Your task to perform on an android device: see sites visited before in the chrome app Image 0: 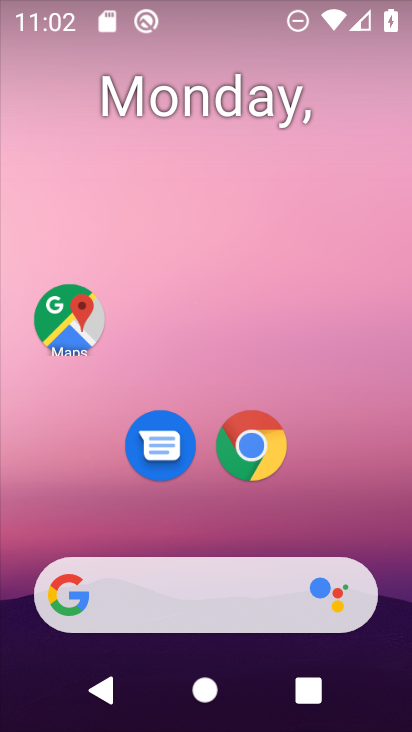
Step 0: press home button
Your task to perform on an android device: see sites visited before in the chrome app Image 1: 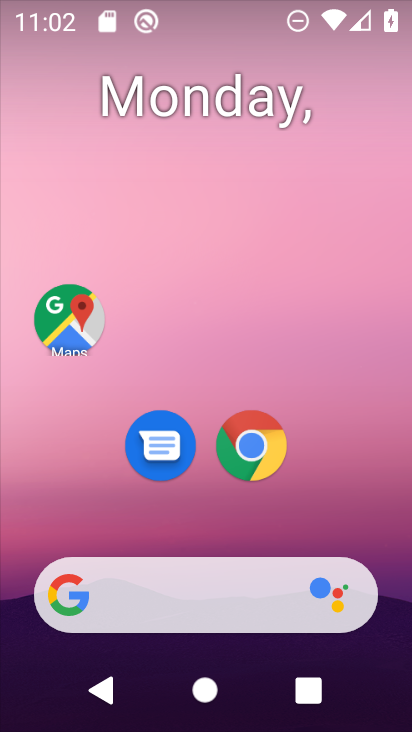
Step 1: click (251, 449)
Your task to perform on an android device: see sites visited before in the chrome app Image 2: 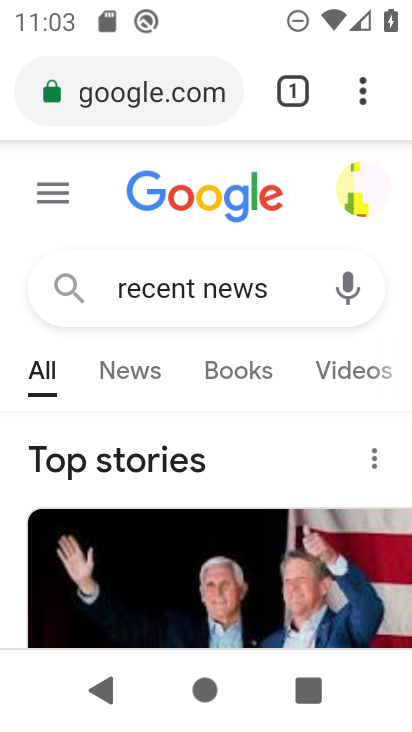
Step 2: click (365, 90)
Your task to perform on an android device: see sites visited before in the chrome app Image 3: 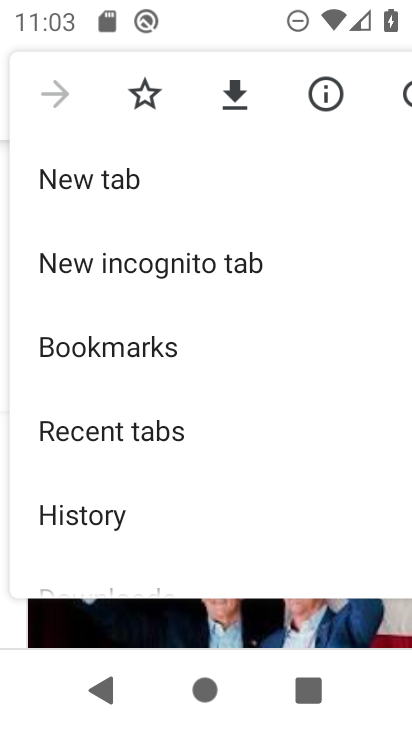
Step 3: click (115, 416)
Your task to perform on an android device: see sites visited before in the chrome app Image 4: 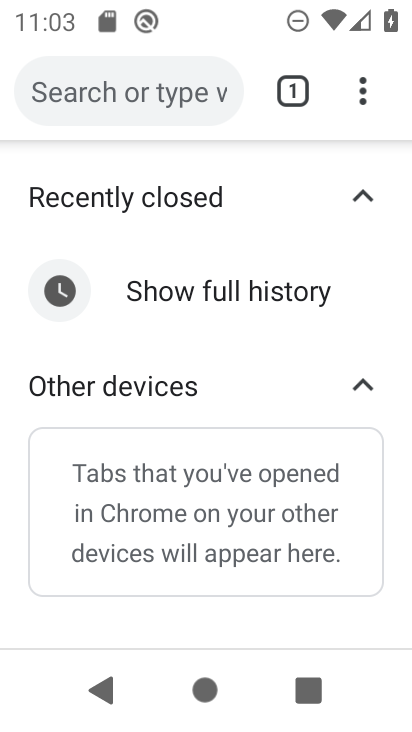
Step 4: task complete